Your task to perform on an android device: Open location settings Image 0: 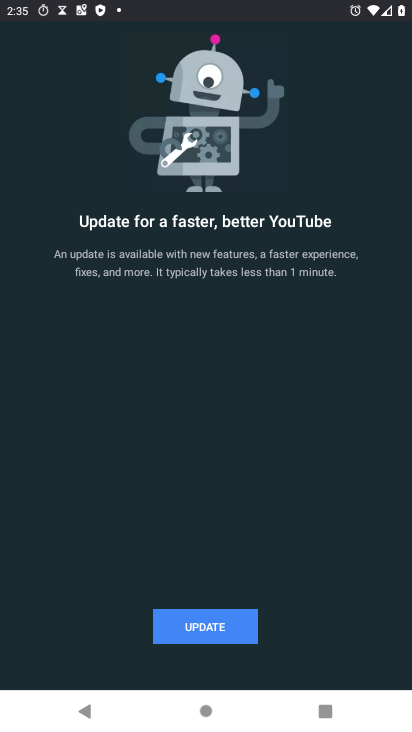
Step 0: press home button
Your task to perform on an android device: Open location settings Image 1: 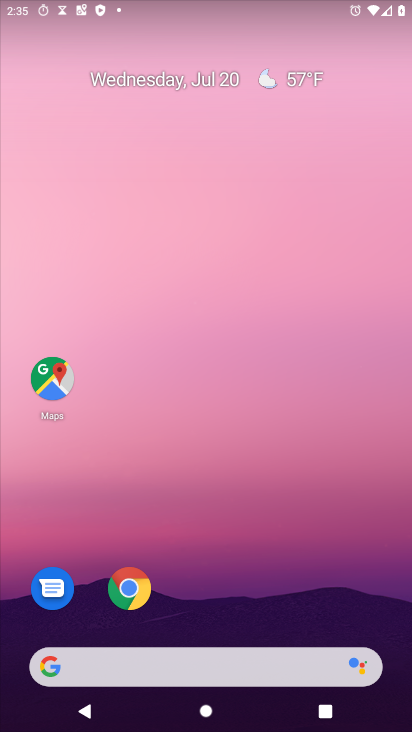
Step 1: drag from (285, 468) to (232, 4)
Your task to perform on an android device: Open location settings Image 2: 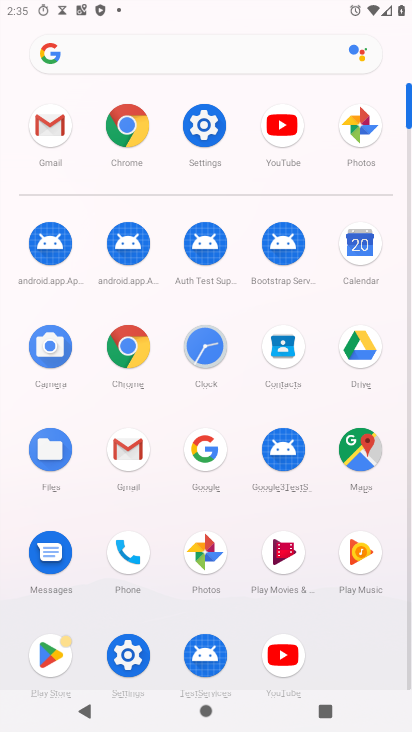
Step 2: click (202, 105)
Your task to perform on an android device: Open location settings Image 3: 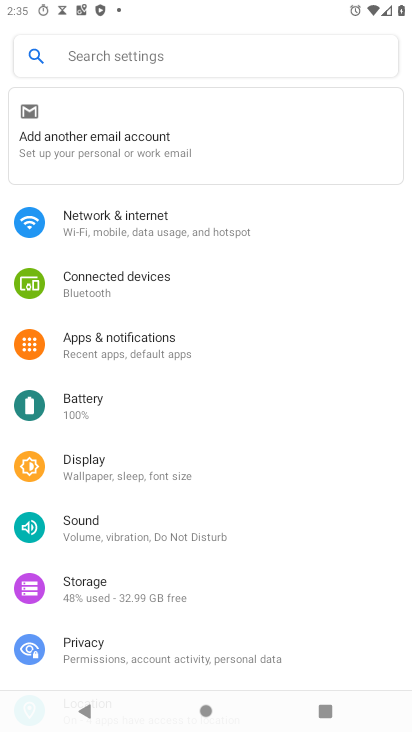
Step 3: drag from (155, 596) to (212, 200)
Your task to perform on an android device: Open location settings Image 4: 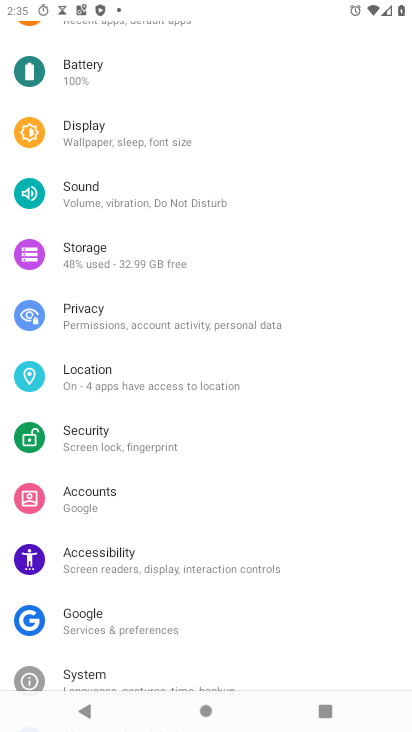
Step 4: click (158, 374)
Your task to perform on an android device: Open location settings Image 5: 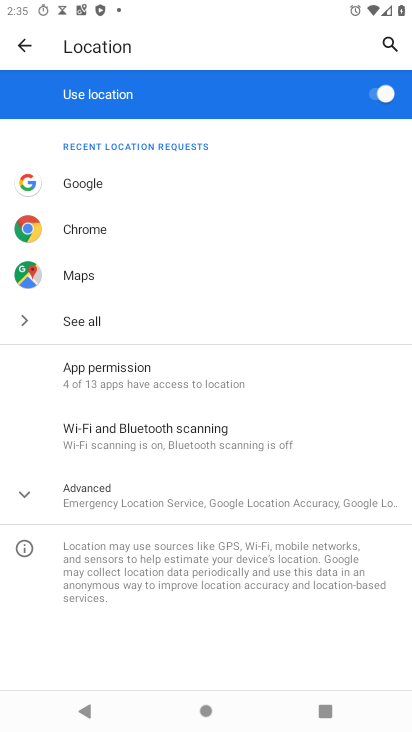
Step 5: task complete